Your task to perform on an android device: What are the new products by Samsung? Image 0: 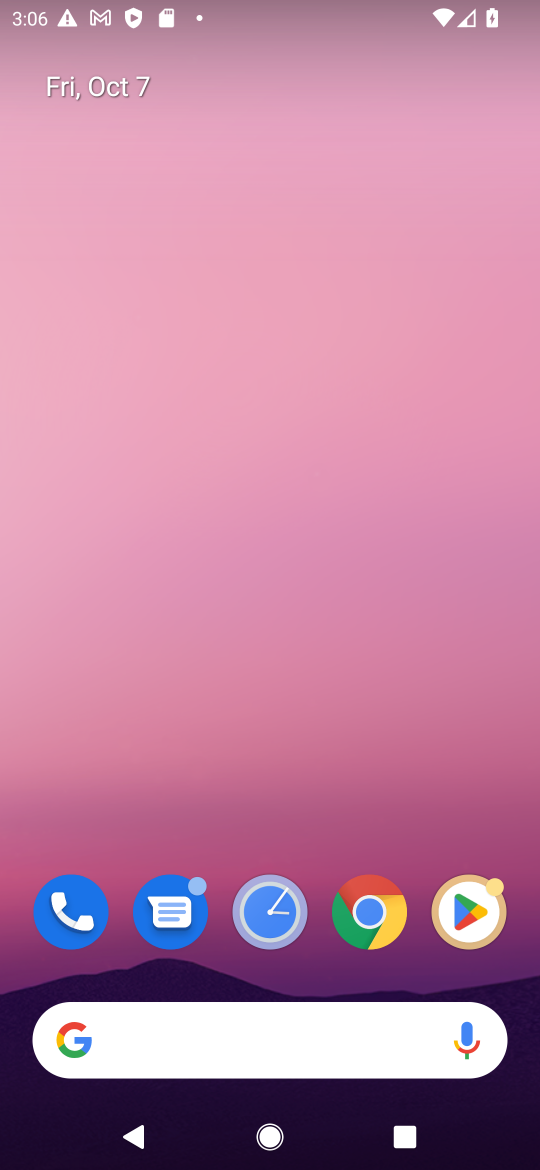
Step 0: drag from (260, 954) to (256, 403)
Your task to perform on an android device: What are the new products by Samsung? Image 1: 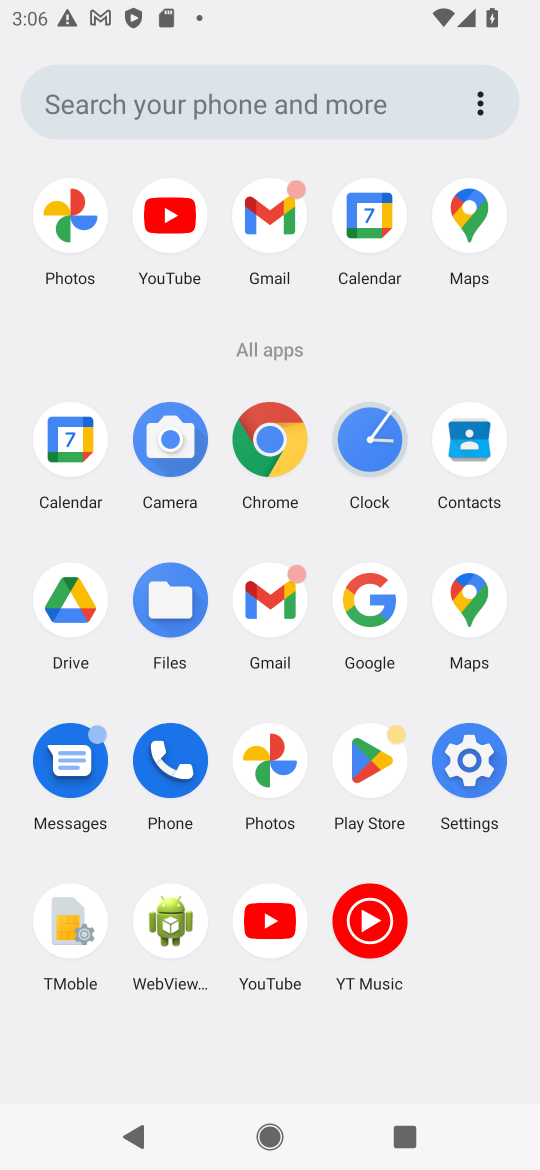
Step 1: click (375, 584)
Your task to perform on an android device: What are the new products by Samsung? Image 2: 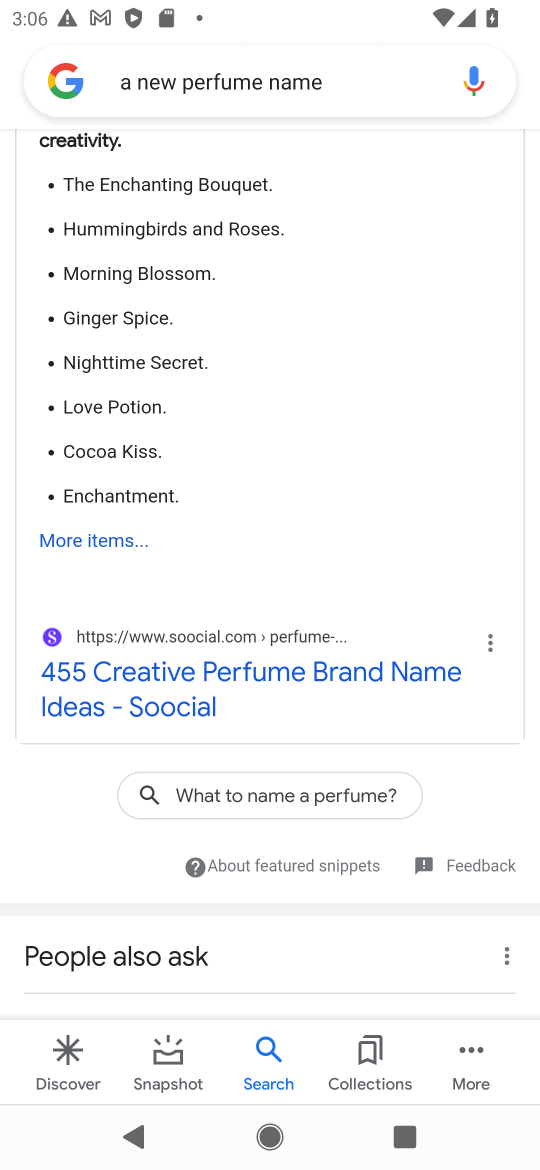
Step 2: click (343, 56)
Your task to perform on an android device: What are the new products by Samsung? Image 3: 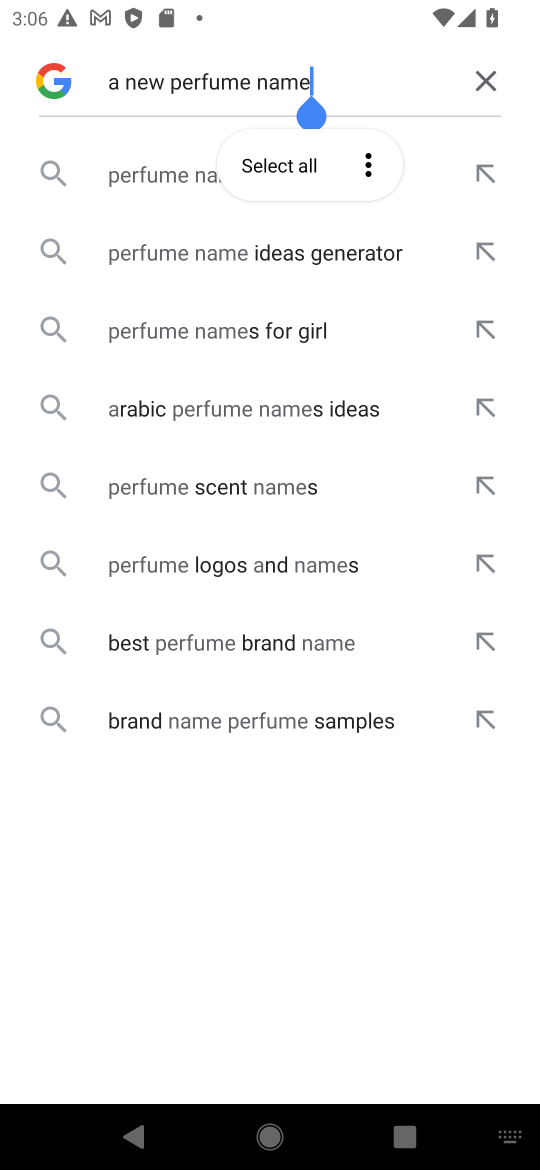
Step 3: click (491, 86)
Your task to perform on an android device: What are the new products by Samsung? Image 4: 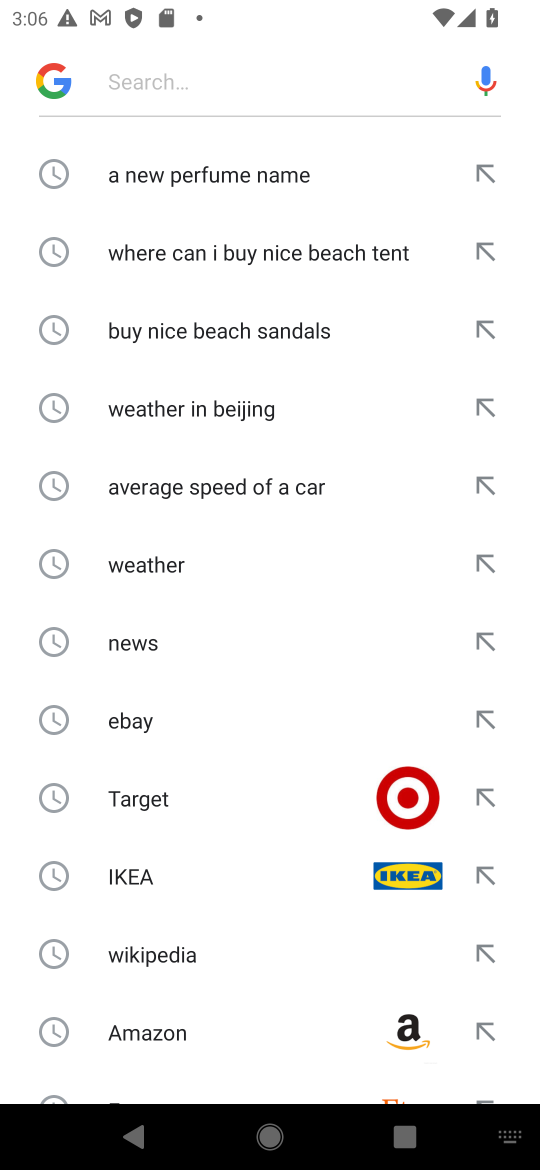
Step 4: click (148, 75)
Your task to perform on an android device: What are the new products by Samsung? Image 5: 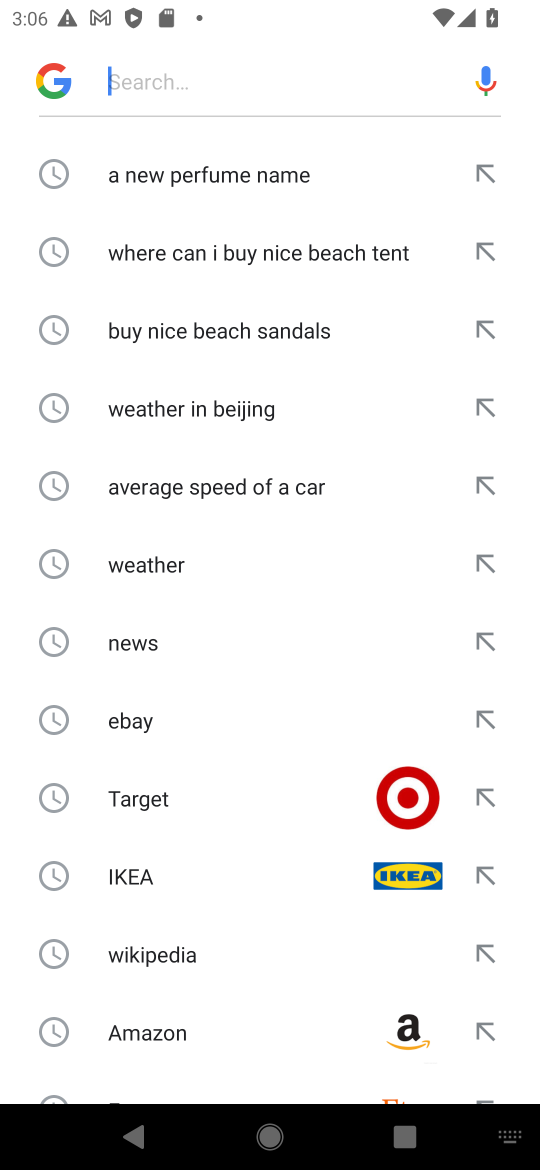
Step 5: type "What are the new products by Samsung?"
Your task to perform on an android device: What are the new products by Samsung? Image 6: 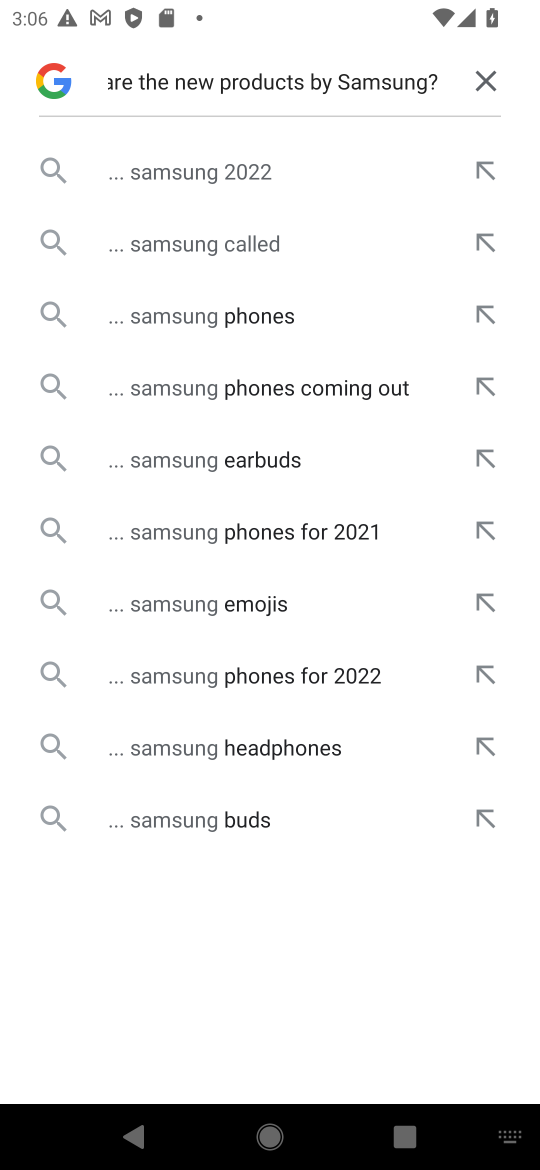
Step 6: drag from (243, 162) to (187, 177)
Your task to perform on an android device: What are the new products by Samsung? Image 7: 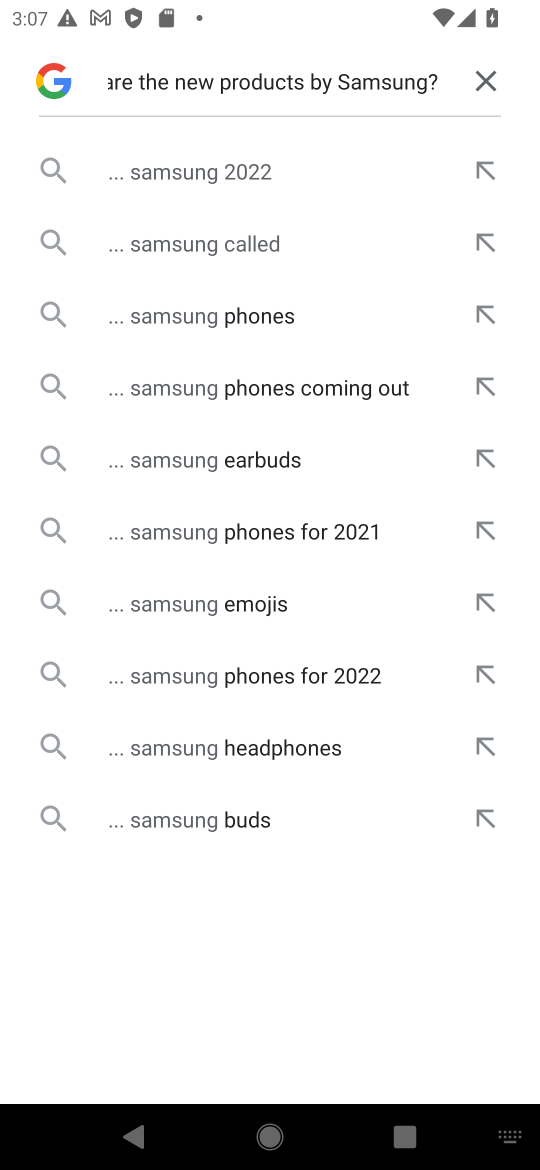
Step 7: click (193, 169)
Your task to perform on an android device: What are the new products by Samsung? Image 8: 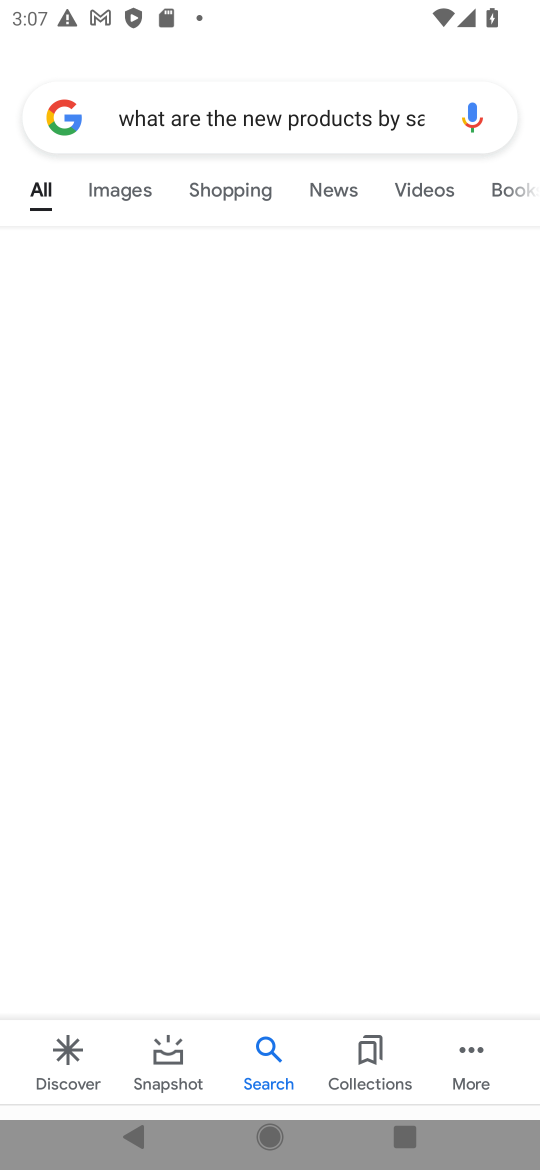
Step 8: click (193, 169)
Your task to perform on an android device: What are the new products by Samsung? Image 9: 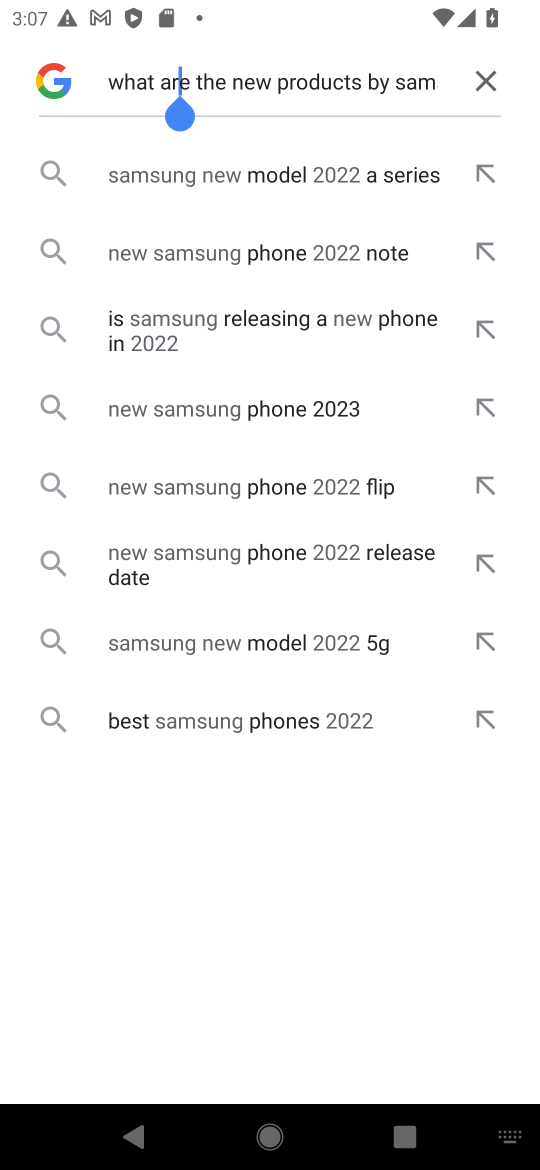
Step 9: click (217, 170)
Your task to perform on an android device: What are the new products by Samsung? Image 10: 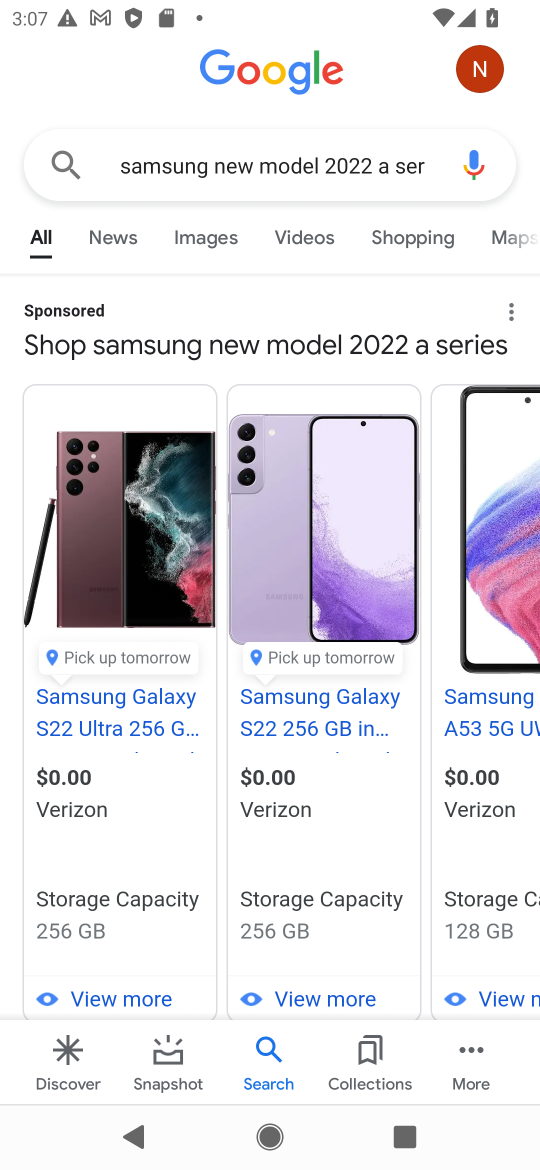
Step 10: task complete